Your task to perform on an android device: find photos in the google photos app Image 0: 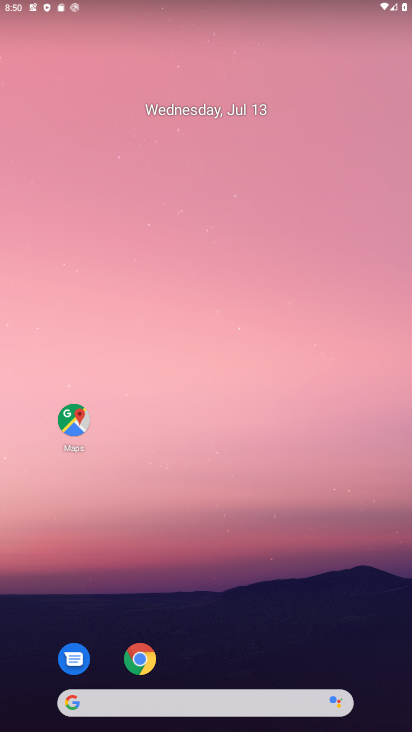
Step 0: drag from (264, 634) to (276, 96)
Your task to perform on an android device: find photos in the google photos app Image 1: 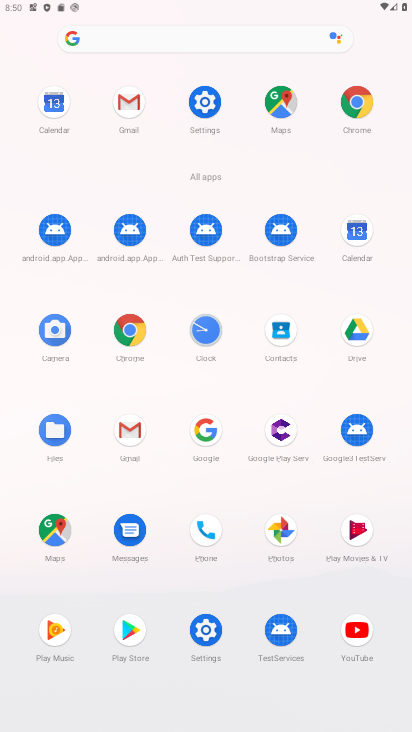
Step 1: click (282, 532)
Your task to perform on an android device: find photos in the google photos app Image 2: 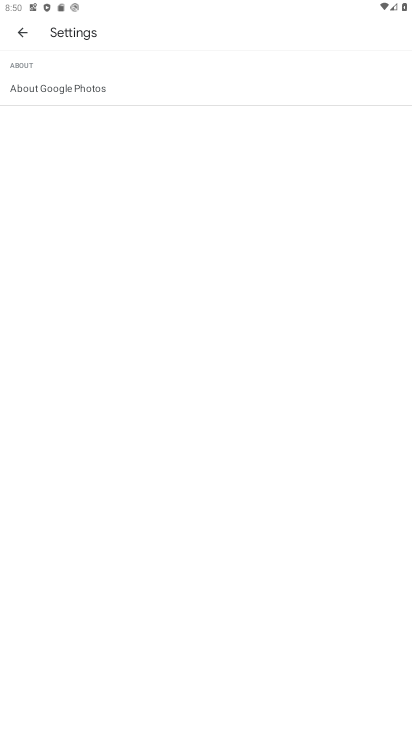
Step 2: press back button
Your task to perform on an android device: find photos in the google photos app Image 3: 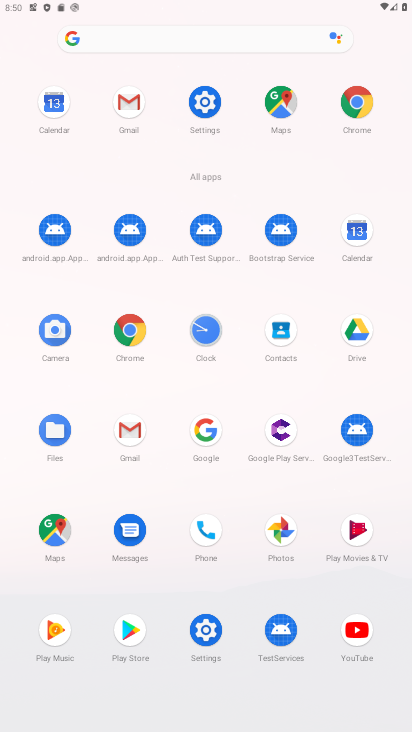
Step 3: click (282, 531)
Your task to perform on an android device: find photos in the google photos app Image 4: 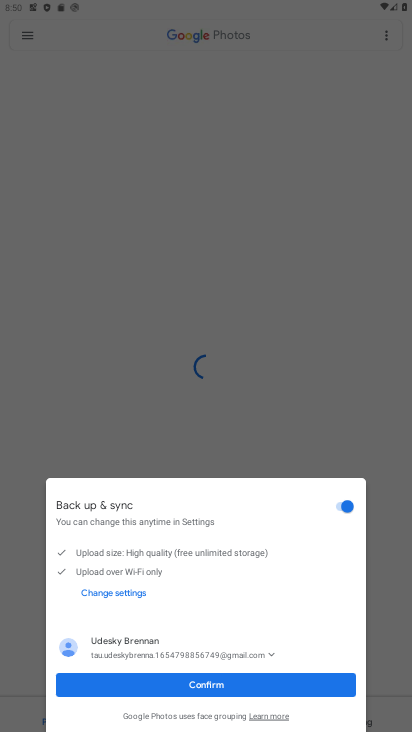
Step 4: click (202, 684)
Your task to perform on an android device: find photos in the google photos app Image 5: 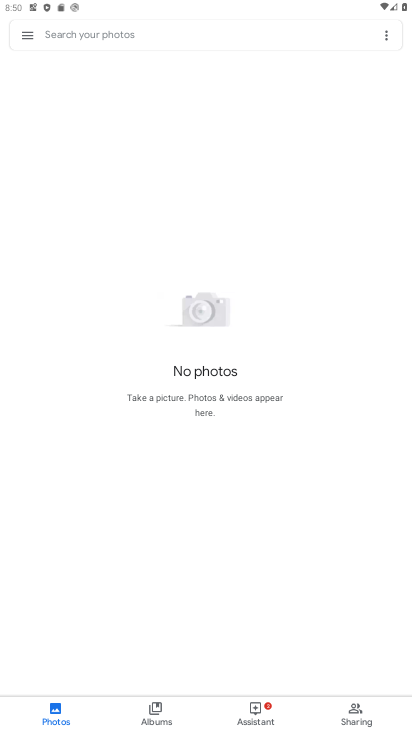
Step 5: task complete